Your task to perform on an android device: Open the phone app and click the voicemail tab. Image 0: 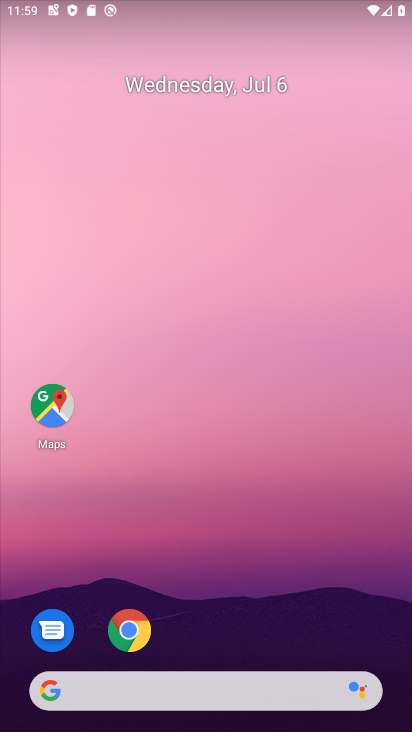
Step 0: drag from (231, 625) to (378, 442)
Your task to perform on an android device: Open the phone app and click the voicemail tab. Image 1: 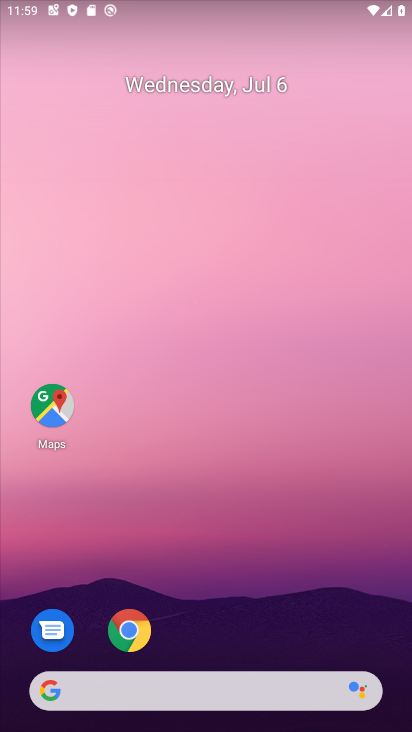
Step 1: drag from (204, 616) to (187, 8)
Your task to perform on an android device: Open the phone app and click the voicemail tab. Image 2: 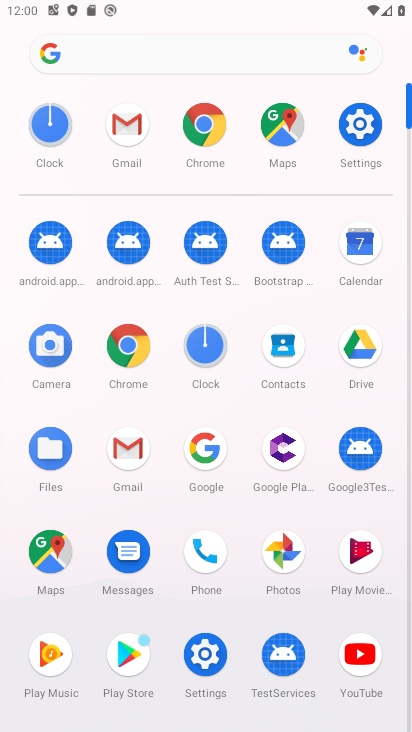
Step 2: click (201, 563)
Your task to perform on an android device: Open the phone app and click the voicemail tab. Image 3: 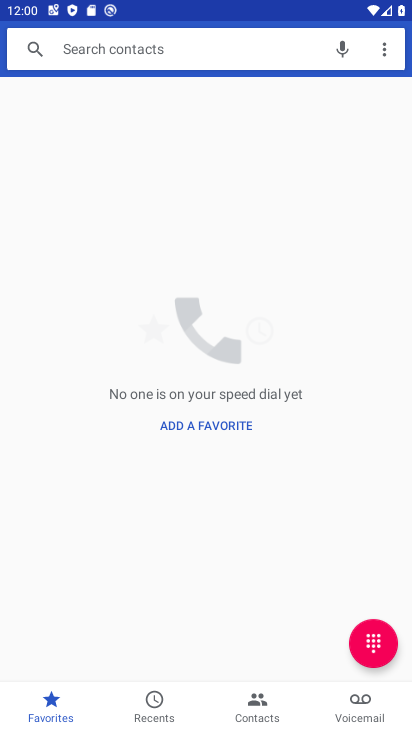
Step 3: click (364, 698)
Your task to perform on an android device: Open the phone app and click the voicemail tab. Image 4: 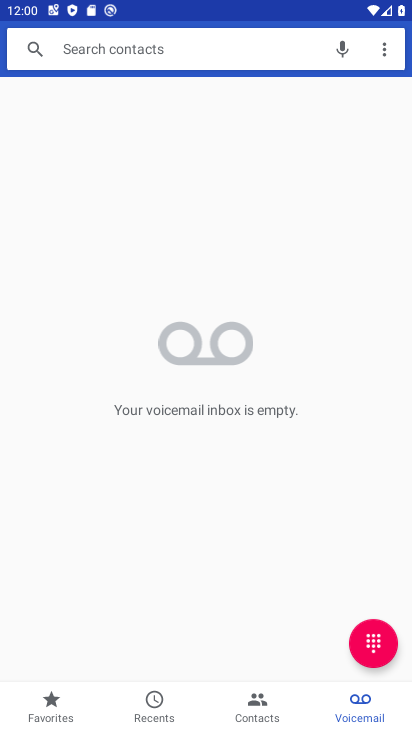
Step 4: task complete